Your task to perform on an android device: View the shopping cart on amazon.com. Search for "duracell triple a" on amazon.com, select the first entry, add it to the cart, then select checkout. Image 0: 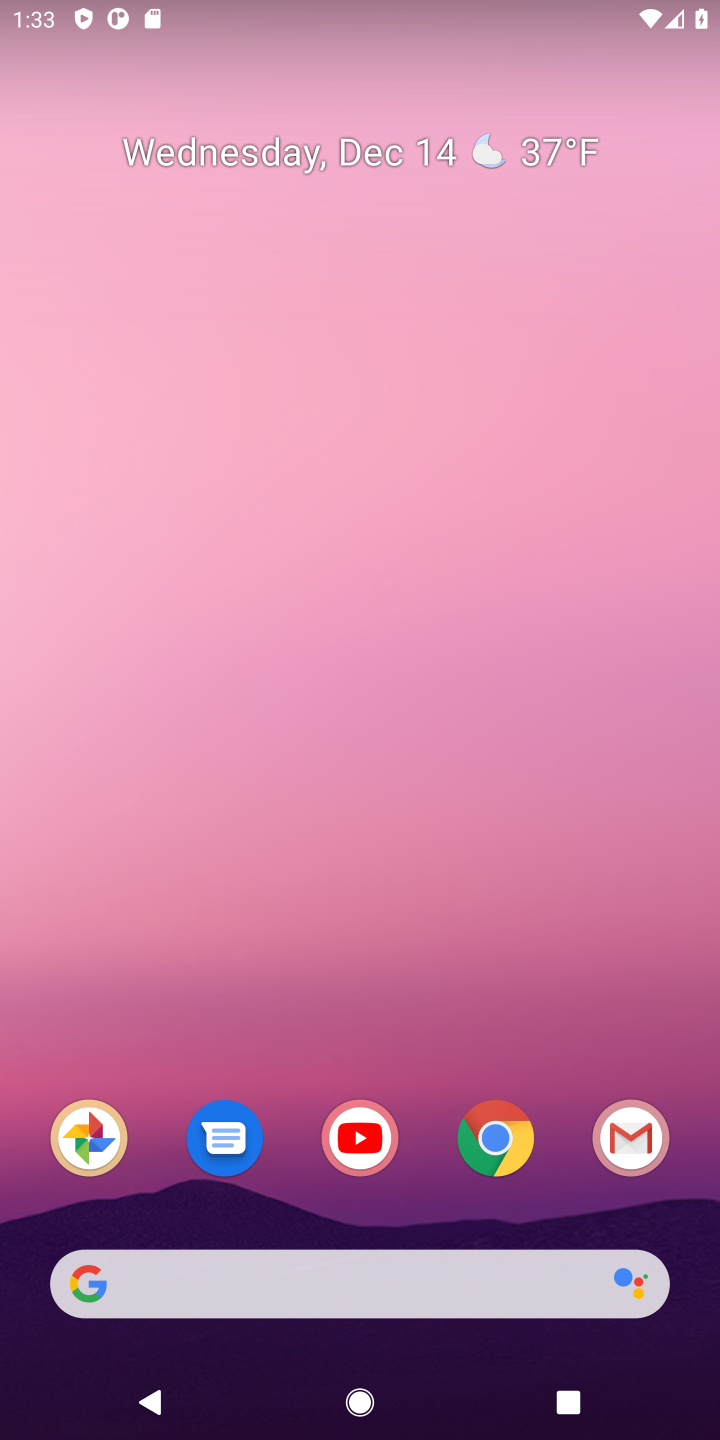
Step 0: click (492, 1124)
Your task to perform on an android device: View the shopping cart on amazon.com. Search for "duracell triple a" on amazon.com, select the first entry, add it to the cart, then select checkout. Image 1: 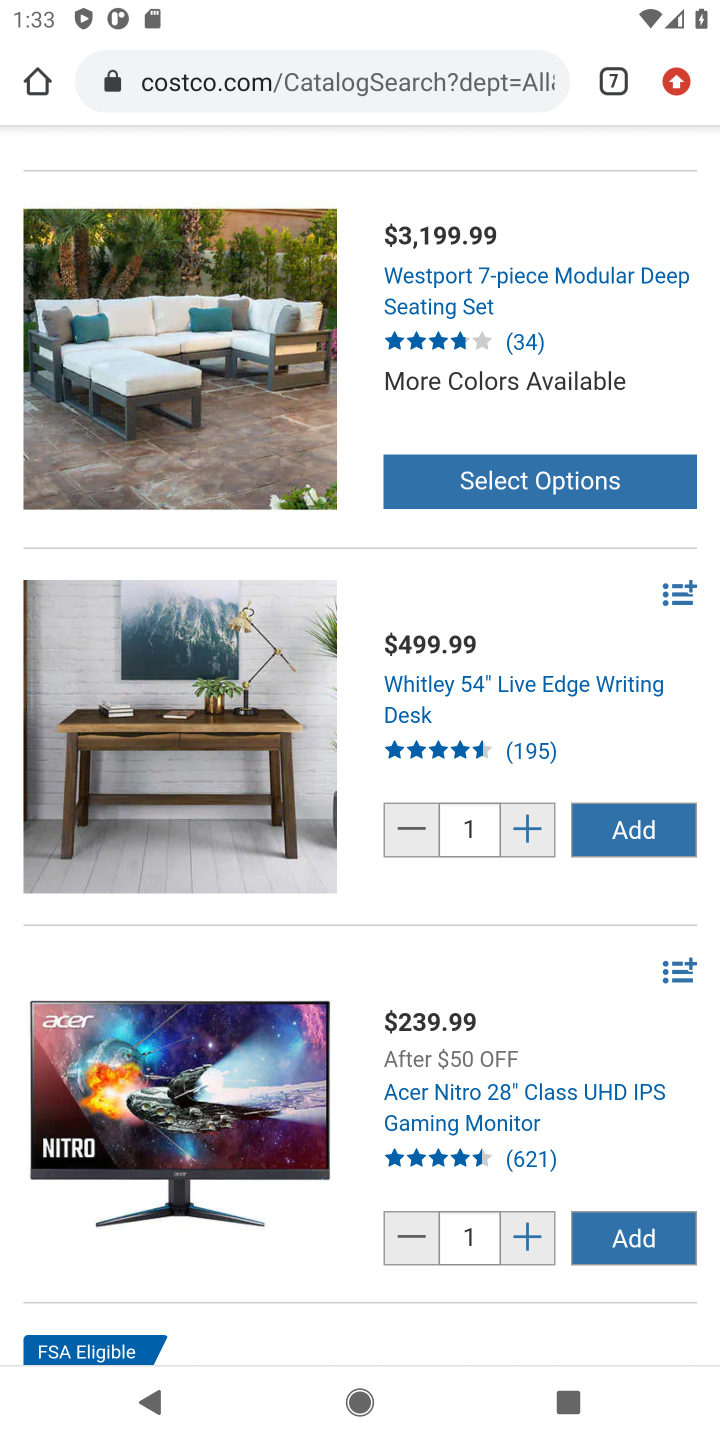
Step 1: click (616, 77)
Your task to perform on an android device: View the shopping cart on amazon.com. Search for "duracell triple a" on amazon.com, select the first entry, add it to the cart, then select checkout. Image 2: 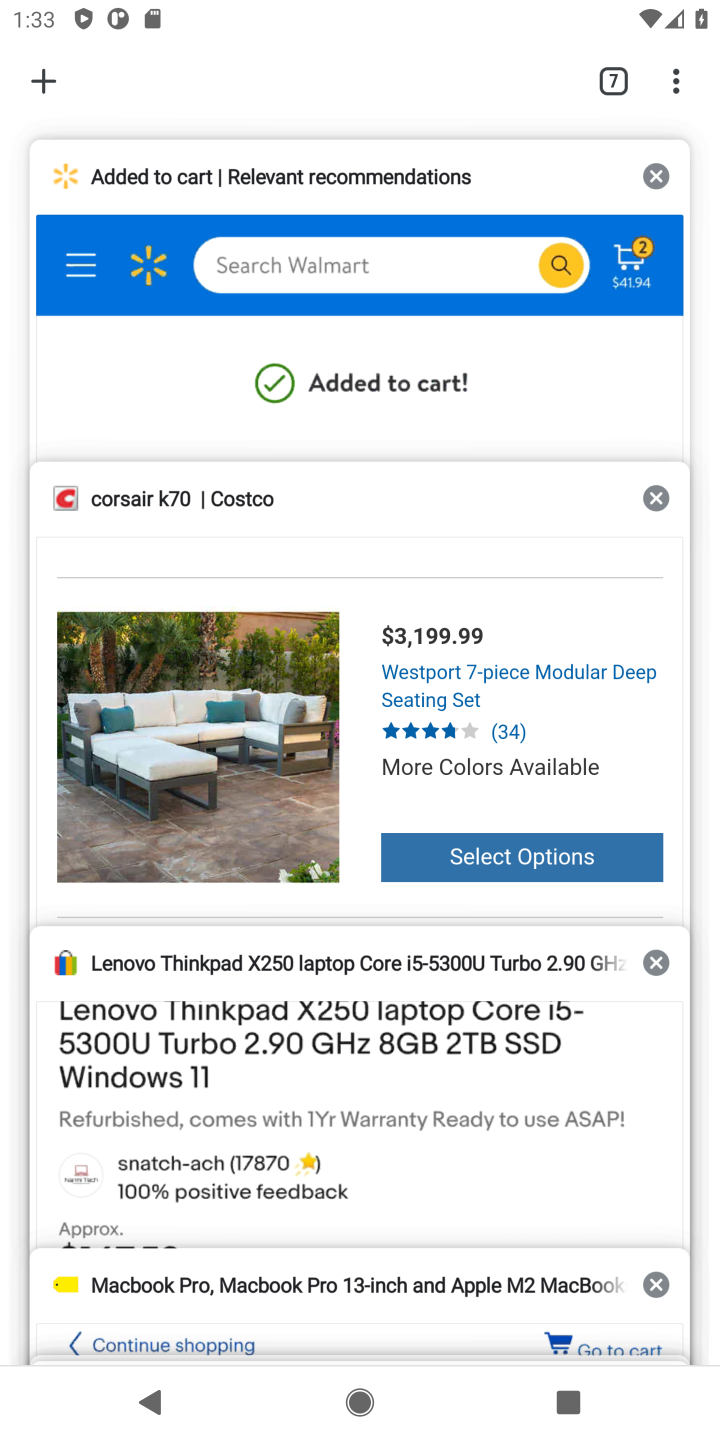
Step 2: drag from (346, 738) to (285, 235)
Your task to perform on an android device: View the shopping cart on amazon.com. Search for "duracell triple a" on amazon.com, select the first entry, add it to the cart, then select checkout. Image 3: 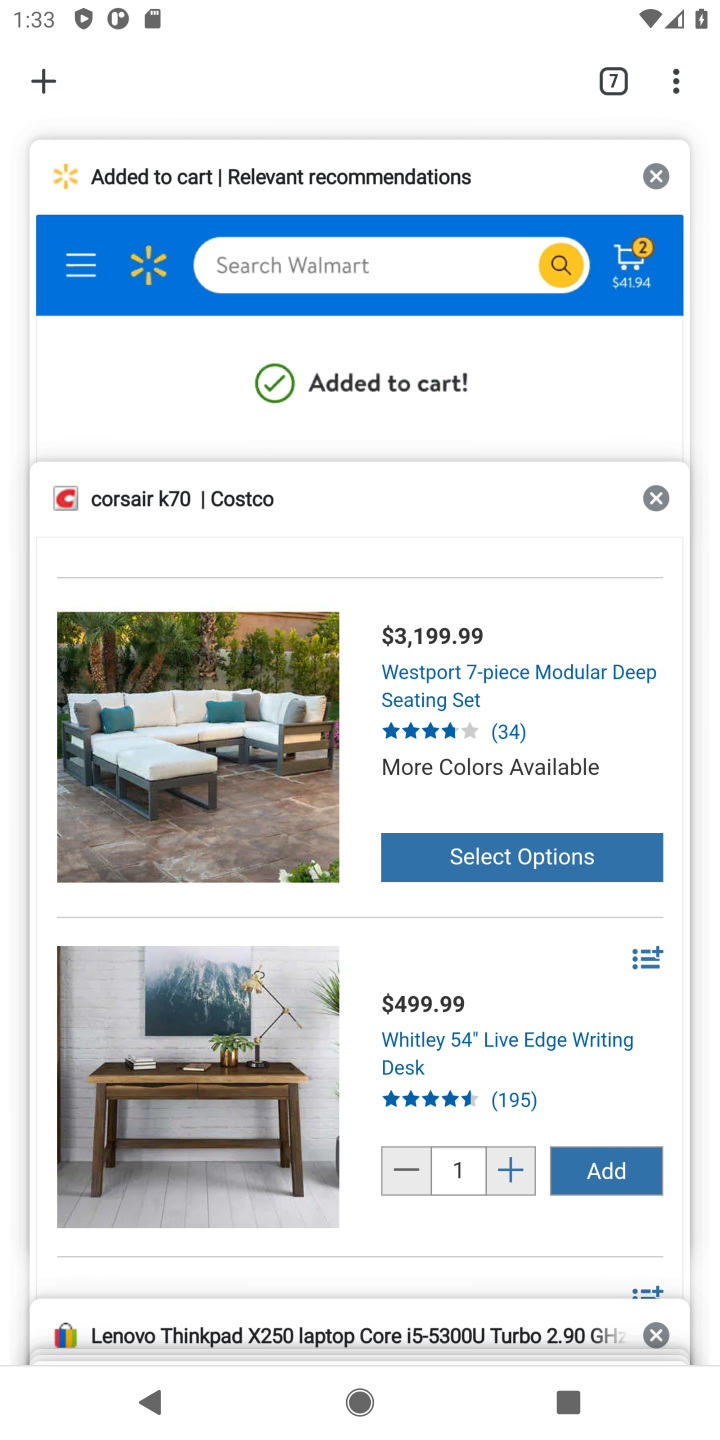
Step 3: drag from (352, 1328) to (455, 449)
Your task to perform on an android device: View the shopping cart on amazon.com. Search for "duracell triple a" on amazon.com, select the first entry, add it to the cart, then select checkout. Image 4: 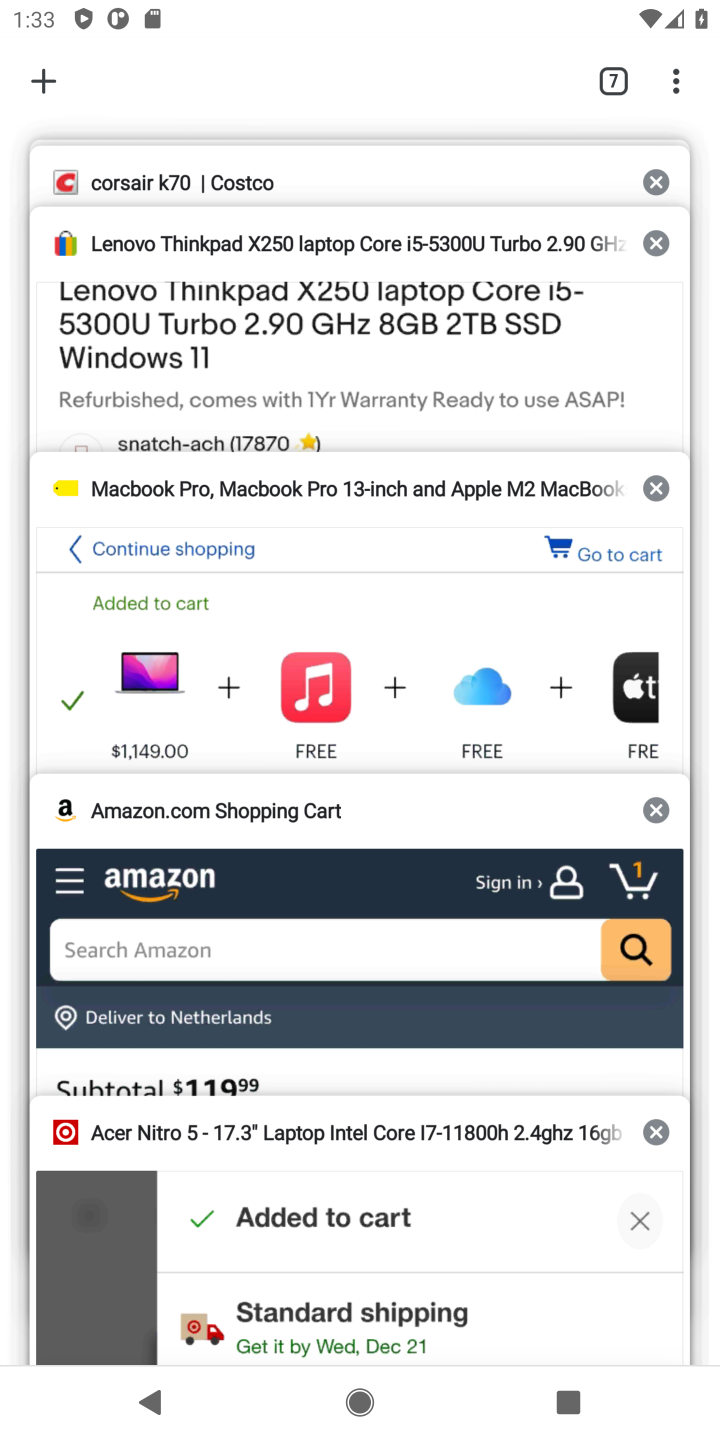
Step 4: click (315, 911)
Your task to perform on an android device: View the shopping cart on amazon.com. Search for "duracell triple a" on amazon.com, select the first entry, add it to the cart, then select checkout. Image 5: 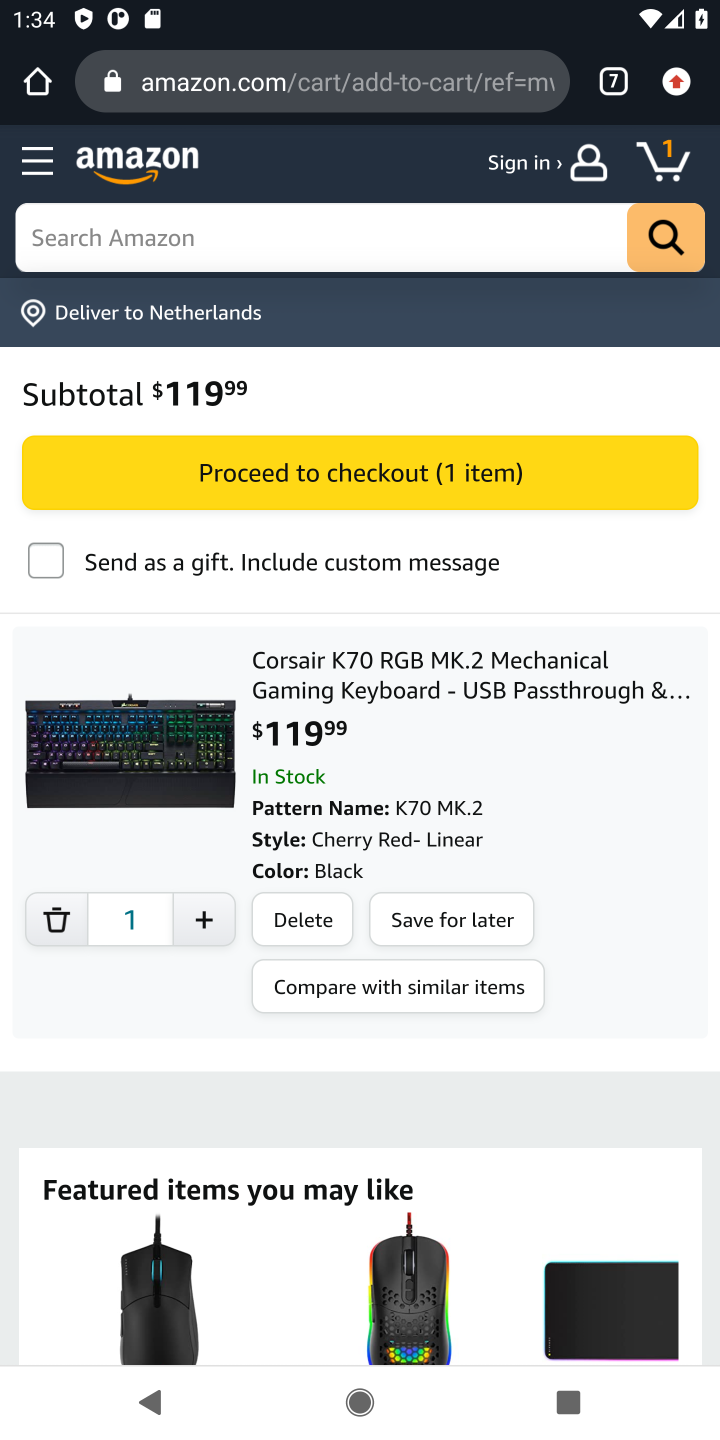
Step 5: click (119, 243)
Your task to perform on an android device: View the shopping cart on amazon.com. Search for "duracell triple a" on amazon.com, select the first entry, add it to the cart, then select checkout. Image 6: 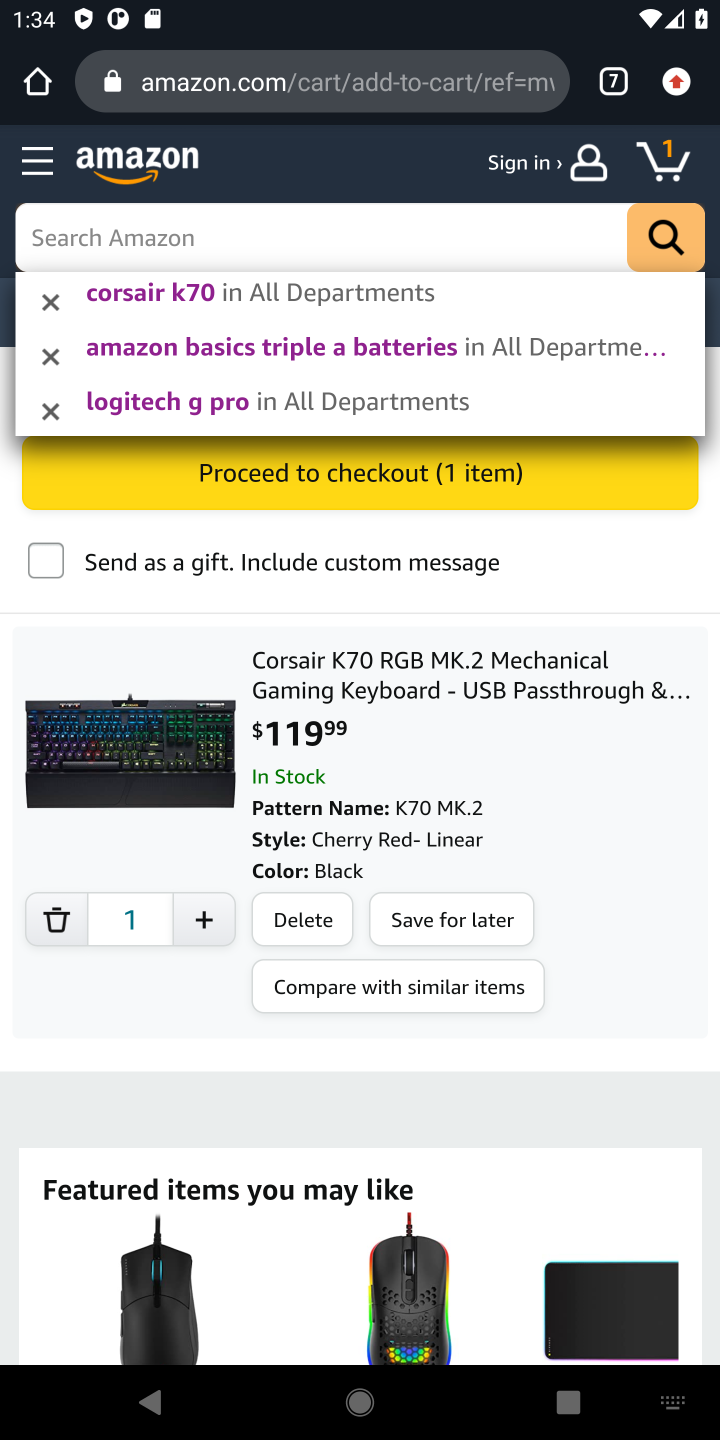
Step 6: type "duracell triple a"
Your task to perform on an android device: View the shopping cart on amazon.com. Search for "duracell triple a" on amazon.com, select the first entry, add it to the cart, then select checkout. Image 7: 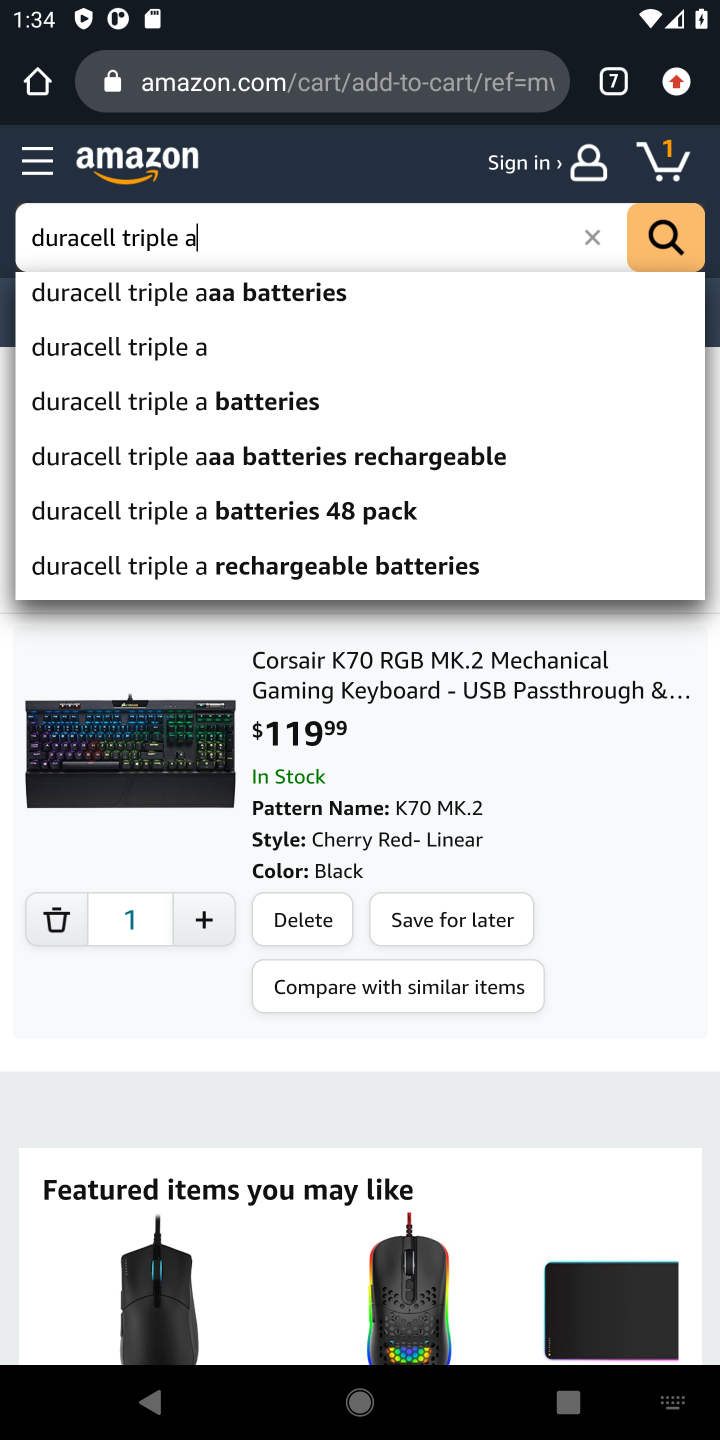
Step 7: click (161, 285)
Your task to perform on an android device: View the shopping cart on amazon.com. Search for "duracell triple a" on amazon.com, select the first entry, add it to the cart, then select checkout. Image 8: 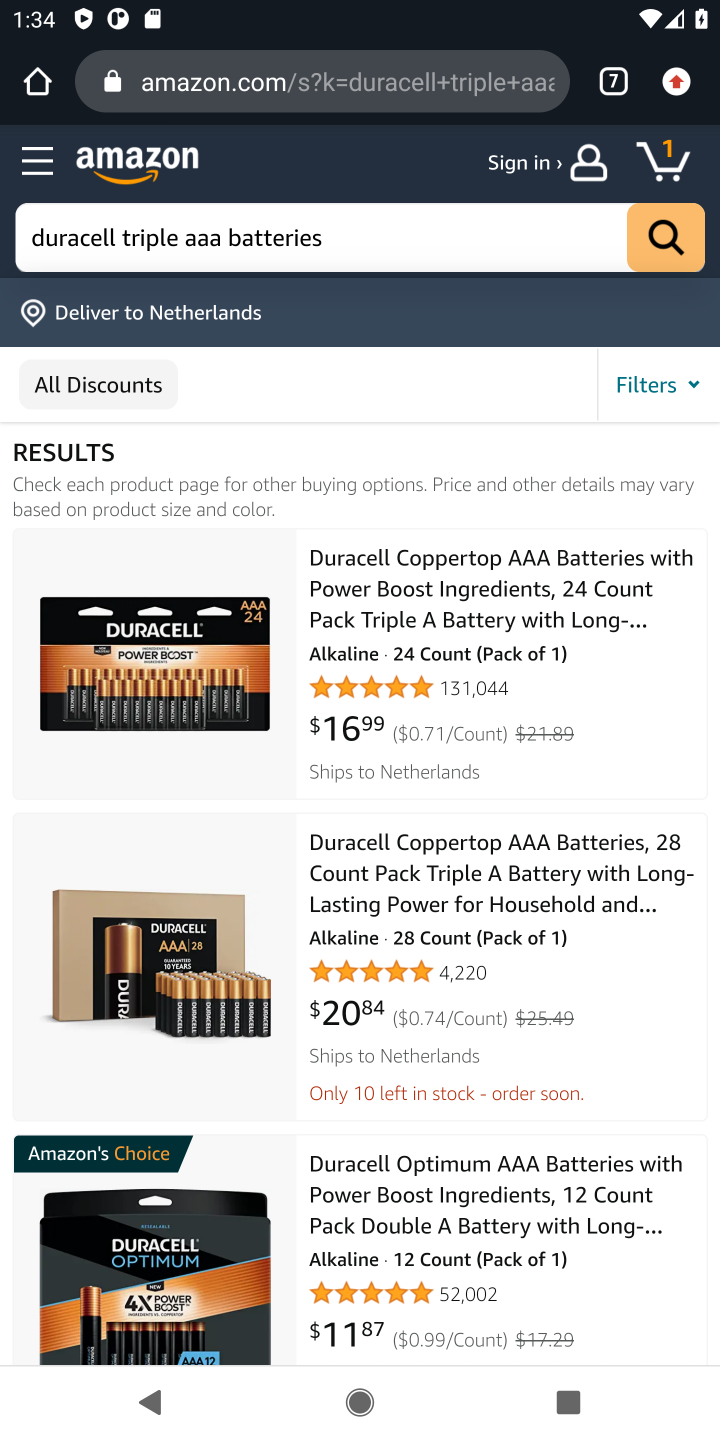
Step 8: click (453, 621)
Your task to perform on an android device: View the shopping cart on amazon.com. Search for "duracell triple a" on amazon.com, select the first entry, add it to the cart, then select checkout. Image 9: 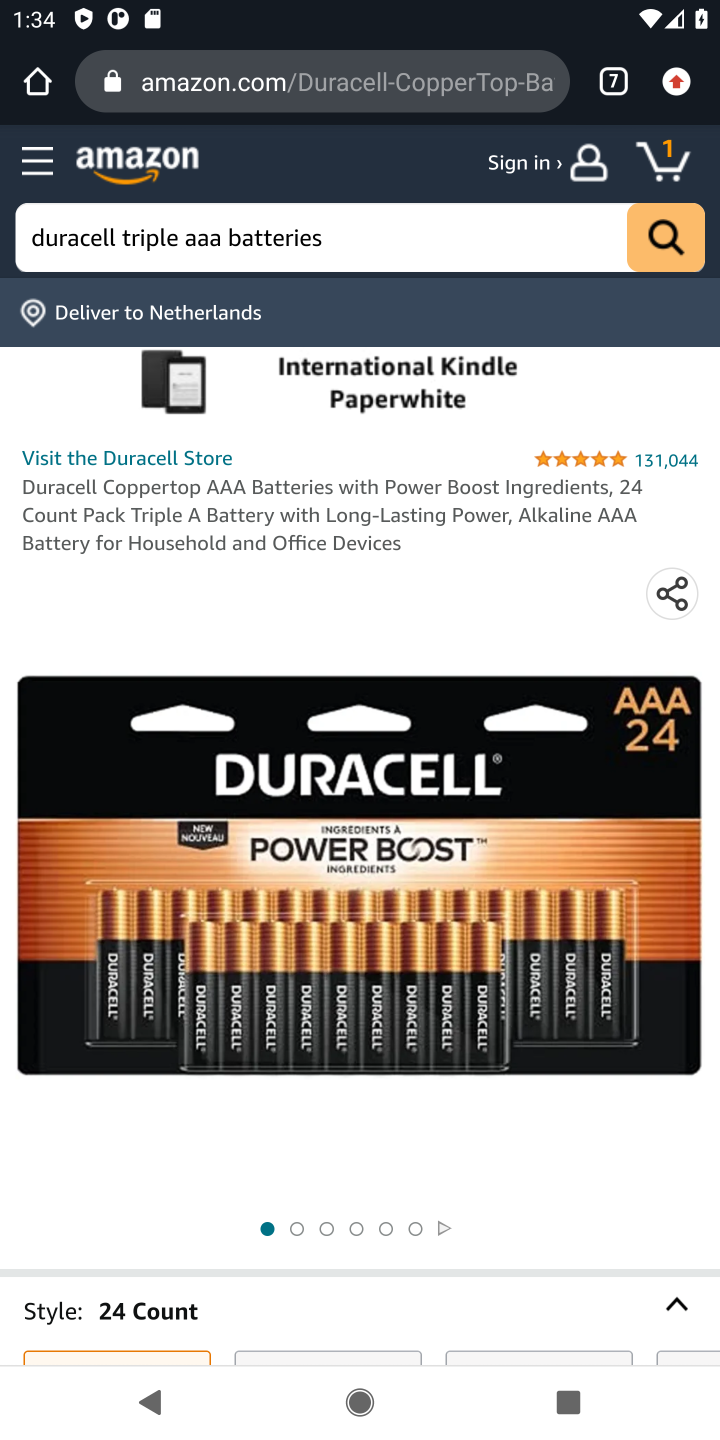
Step 9: drag from (434, 1204) to (504, 424)
Your task to perform on an android device: View the shopping cart on amazon.com. Search for "duracell triple a" on amazon.com, select the first entry, add it to the cart, then select checkout. Image 10: 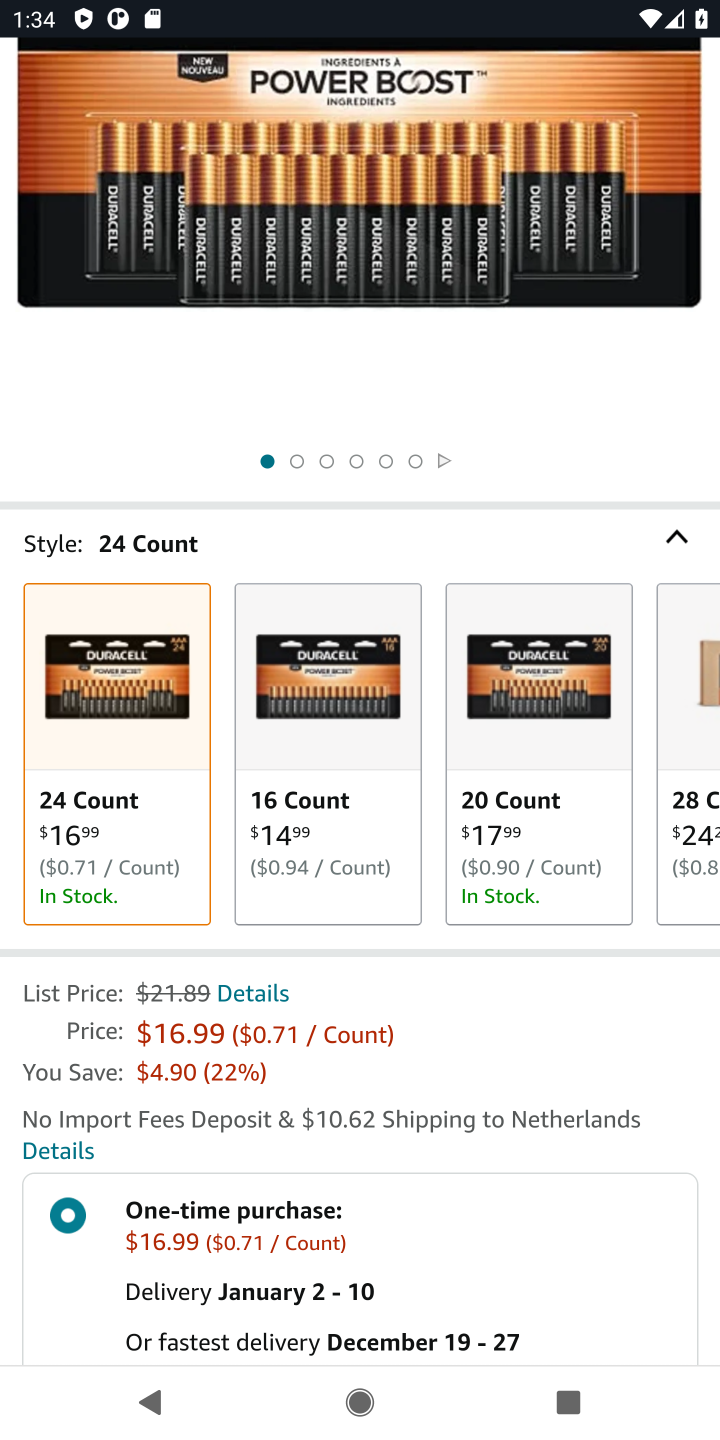
Step 10: drag from (525, 1250) to (531, 591)
Your task to perform on an android device: View the shopping cart on amazon.com. Search for "duracell triple a" on amazon.com, select the first entry, add it to the cart, then select checkout. Image 11: 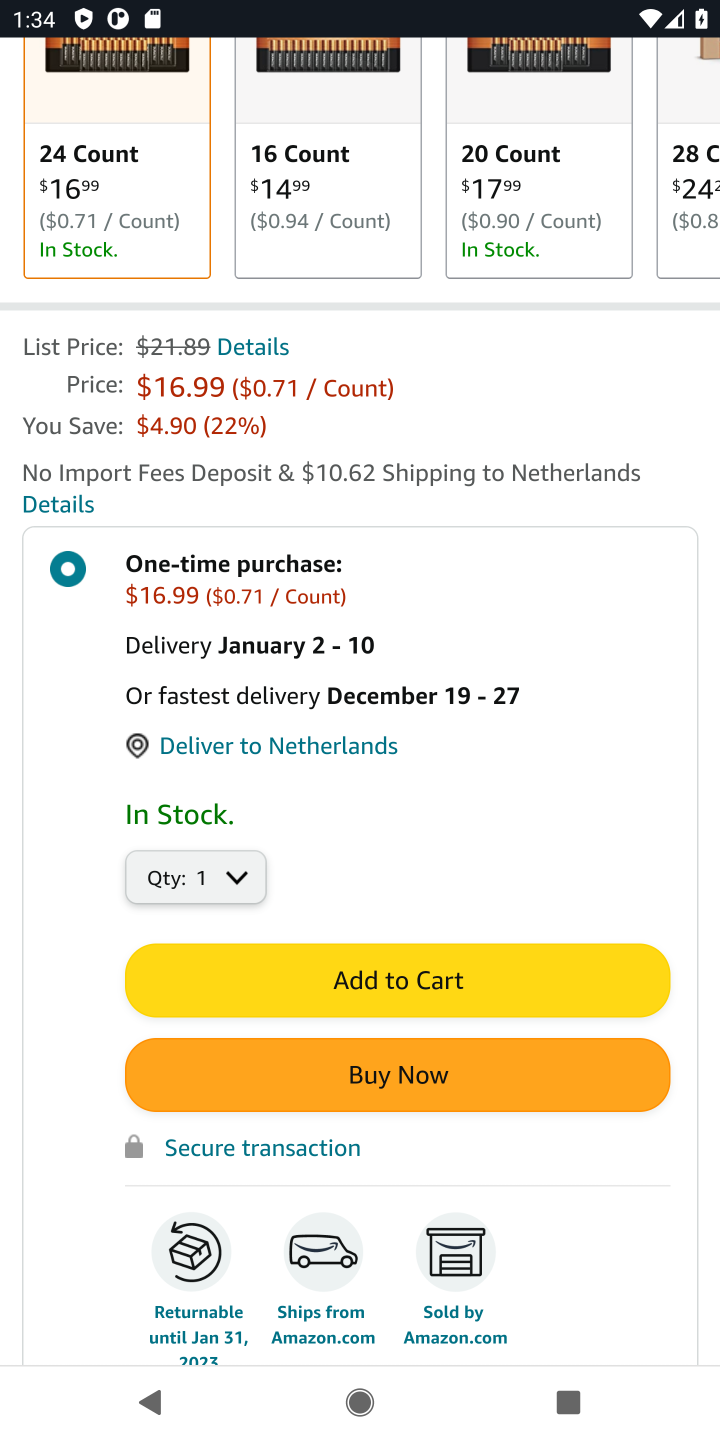
Step 11: click (439, 976)
Your task to perform on an android device: View the shopping cart on amazon.com. Search for "duracell triple a" on amazon.com, select the first entry, add it to the cart, then select checkout. Image 12: 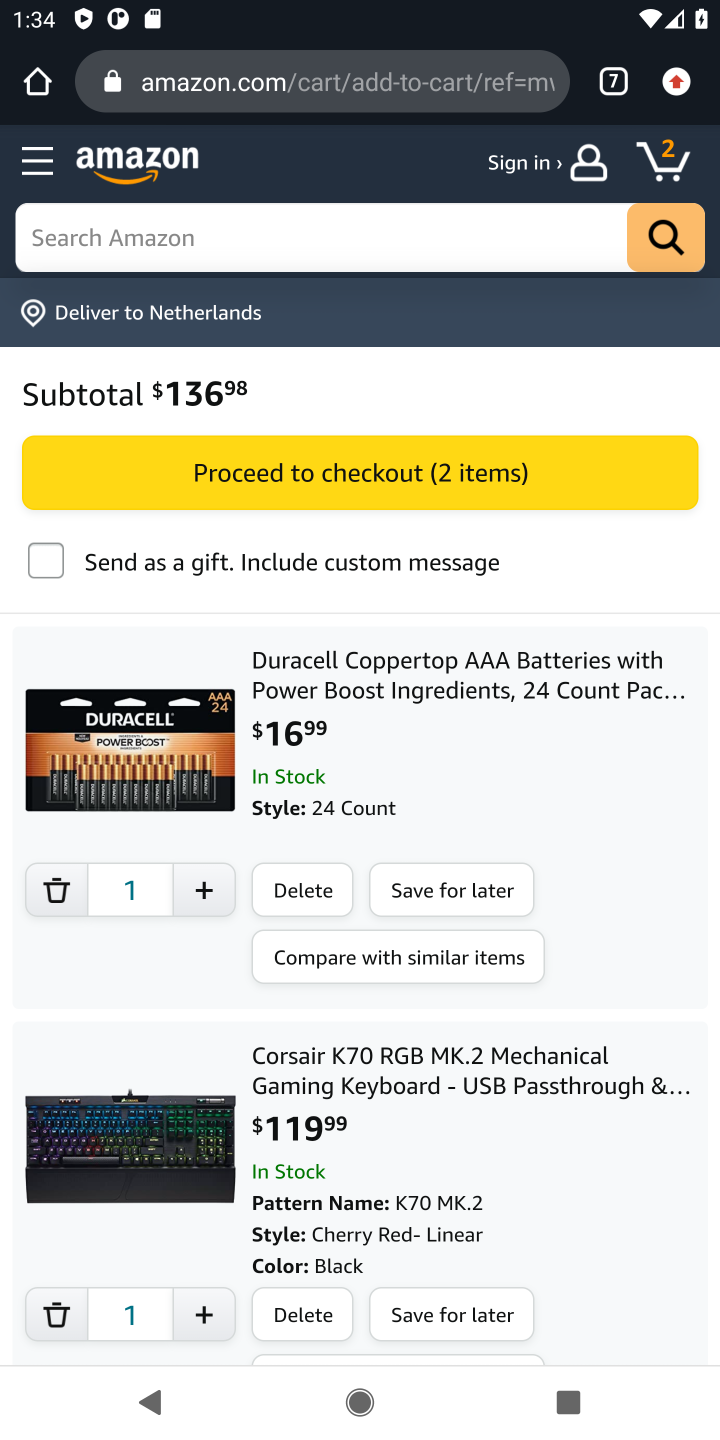
Step 12: task complete